Your task to perform on an android device: Go to settings Image 0: 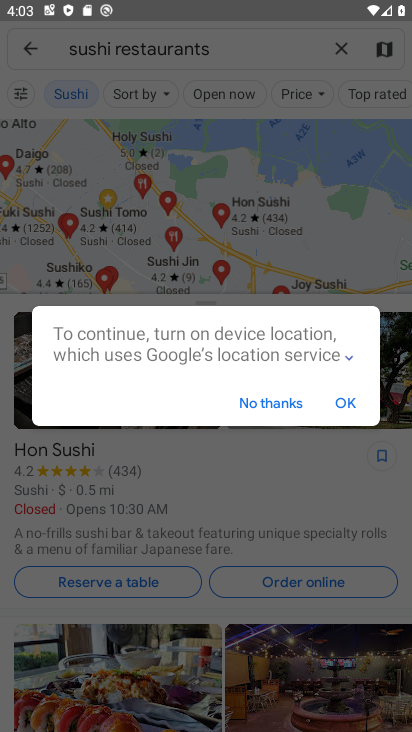
Step 0: press home button
Your task to perform on an android device: Go to settings Image 1: 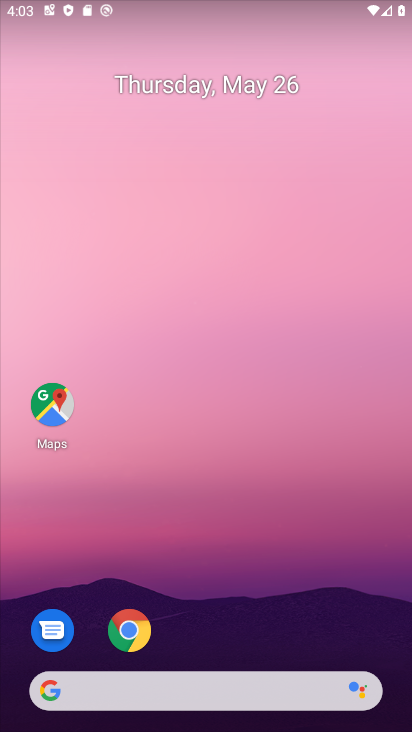
Step 1: drag from (239, 618) to (221, 191)
Your task to perform on an android device: Go to settings Image 2: 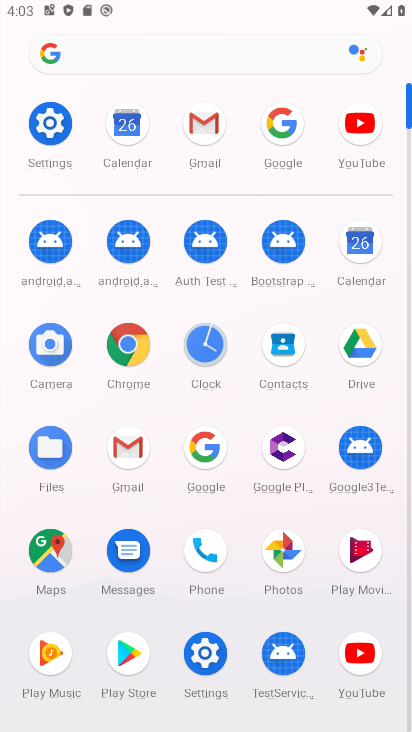
Step 2: click (48, 124)
Your task to perform on an android device: Go to settings Image 3: 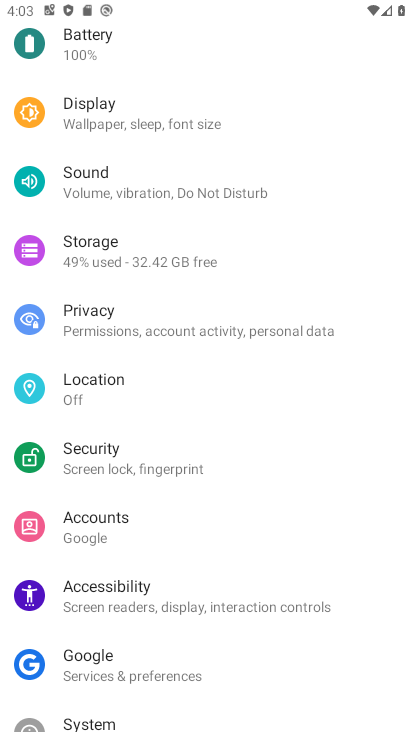
Step 3: task complete